Your task to perform on an android device: see sites visited before in the chrome app Image 0: 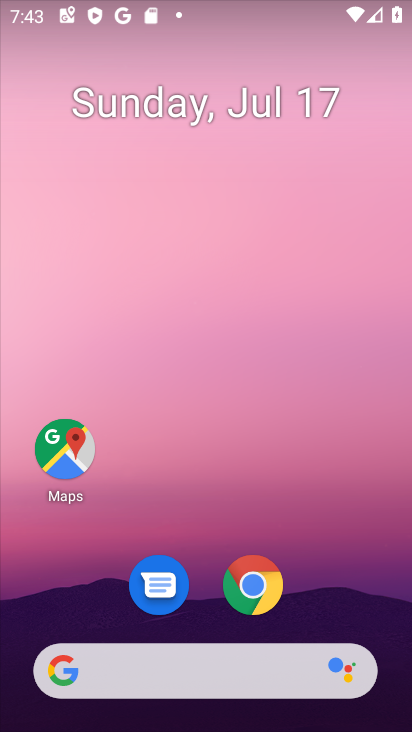
Step 0: click (257, 587)
Your task to perform on an android device: see sites visited before in the chrome app Image 1: 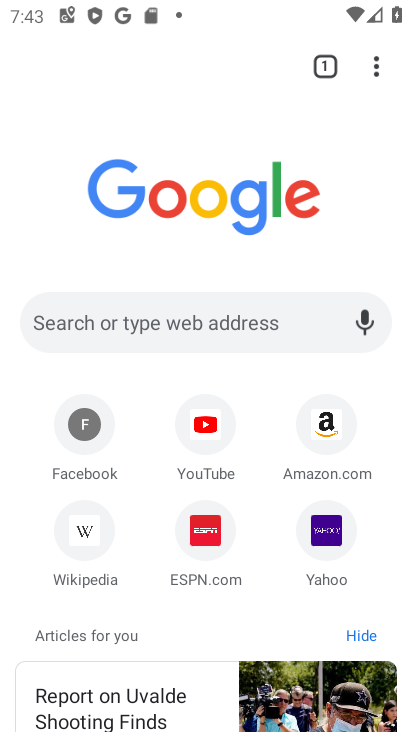
Step 1: click (376, 68)
Your task to perform on an android device: see sites visited before in the chrome app Image 2: 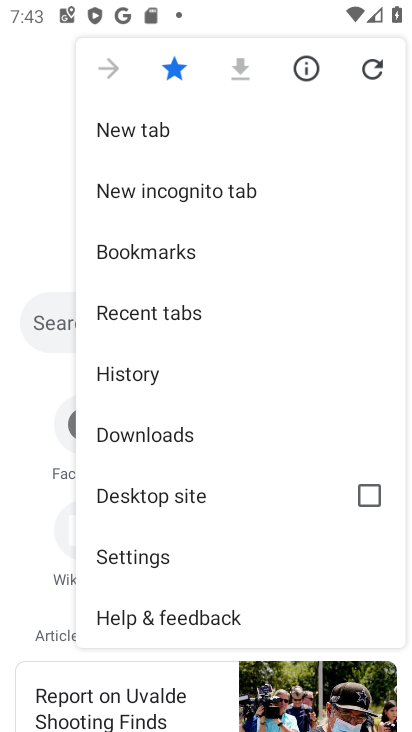
Step 2: click (175, 307)
Your task to perform on an android device: see sites visited before in the chrome app Image 3: 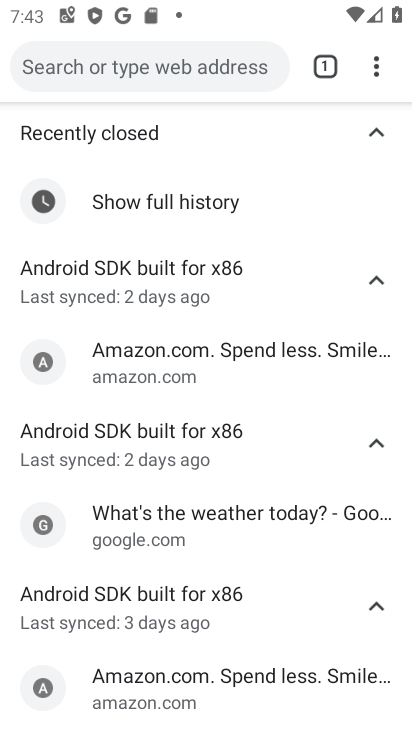
Step 3: task complete